Your task to perform on an android device: Go to settings Image 0: 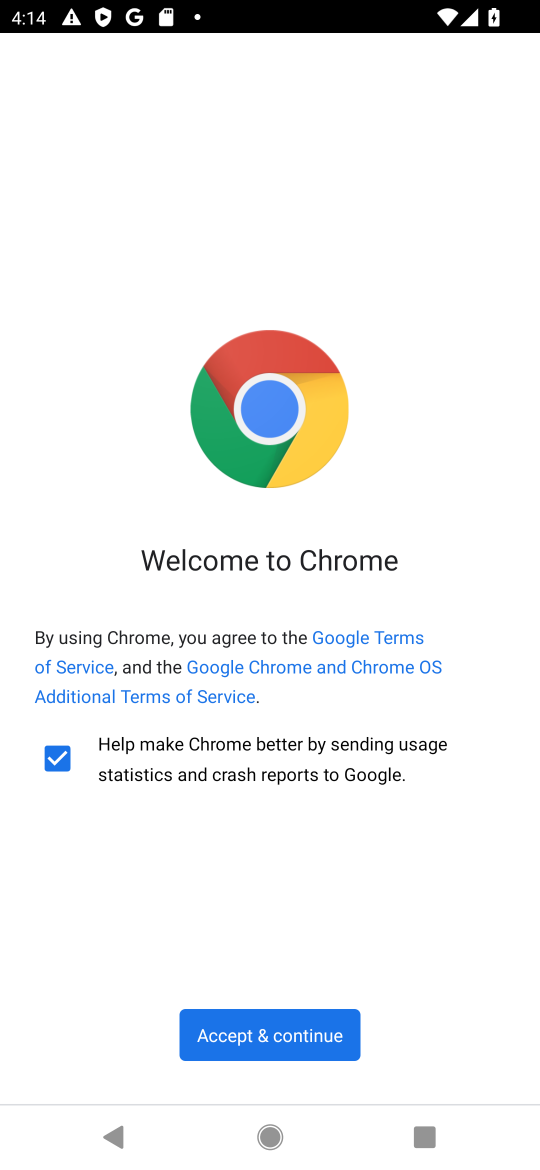
Step 0: press home button
Your task to perform on an android device: Go to settings Image 1: 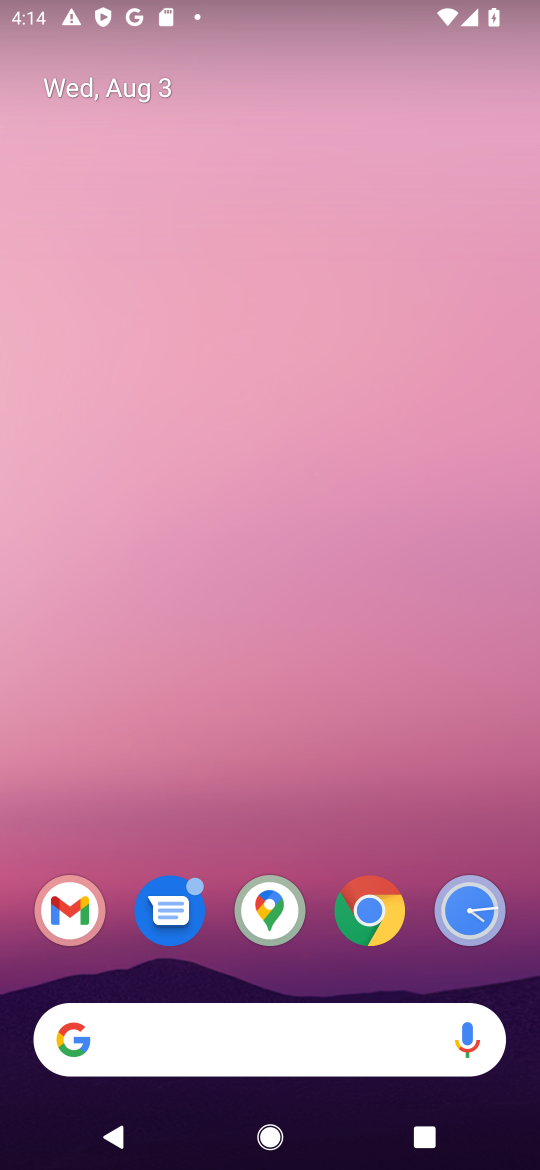
Step 1: drag from (34, 1137) to (343, 200)
Your task to perform on an android device: Go to settings Image 2: 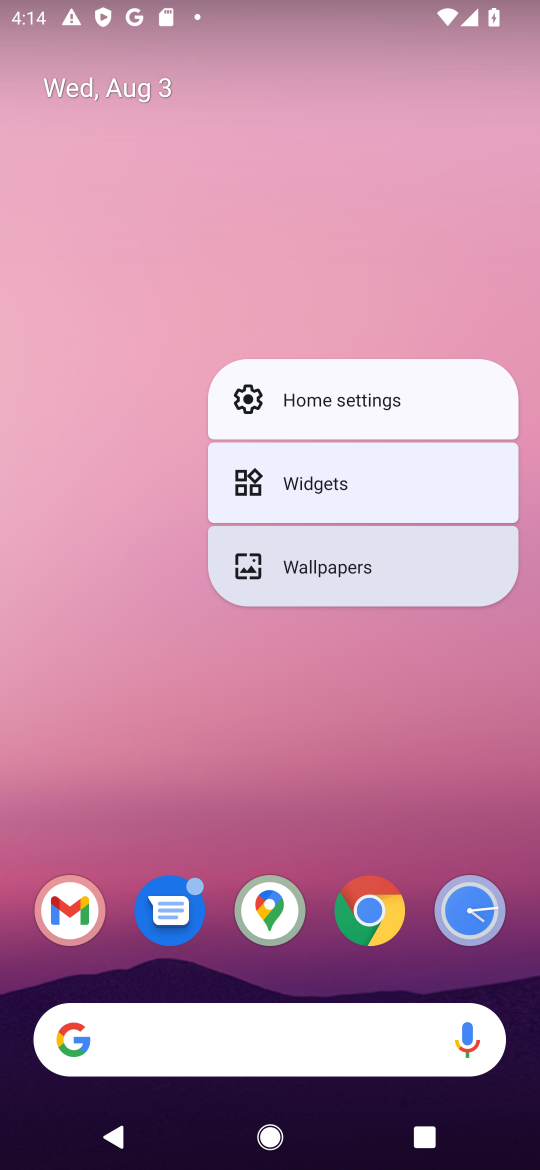
Step 2: drag from (103, 942) to (0, 1088)
Your task to perform on an android device: Go to settings Image 3: 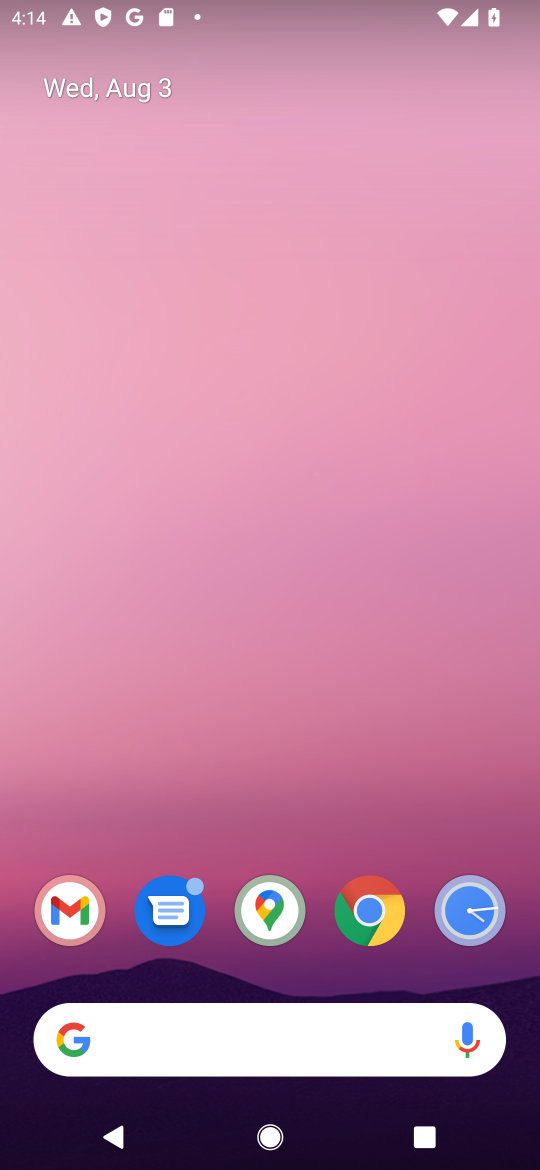
Step 3: drag from (125, 778) to (453, 1011)
Your task to perform on an android device: Go to settings Image 4: 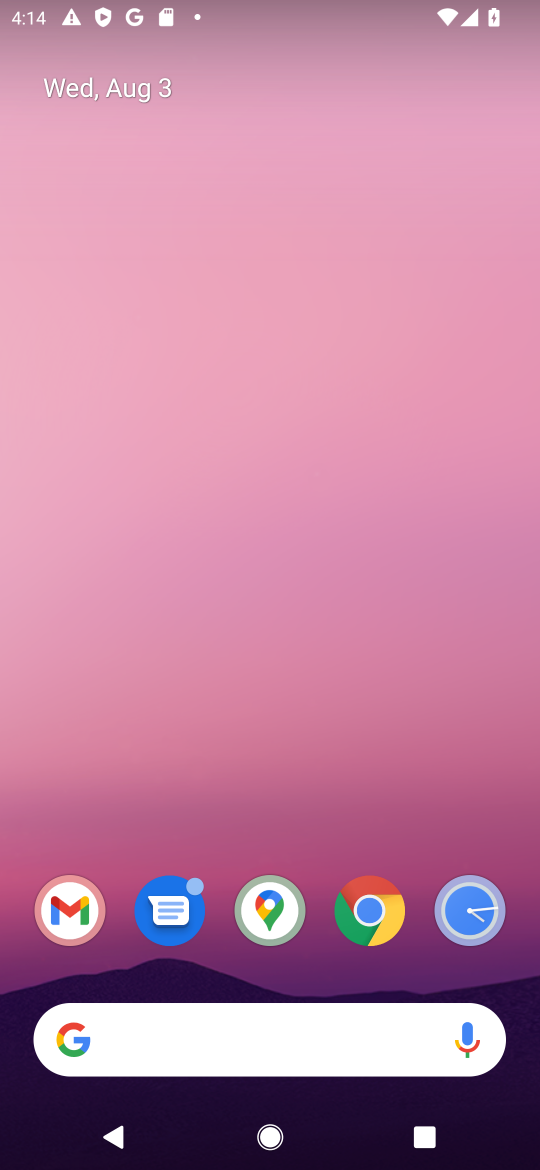
Step 4: drag from (64, 1117) to (272, 63)
Your task to perform on an android device: Go to settings Image 5: 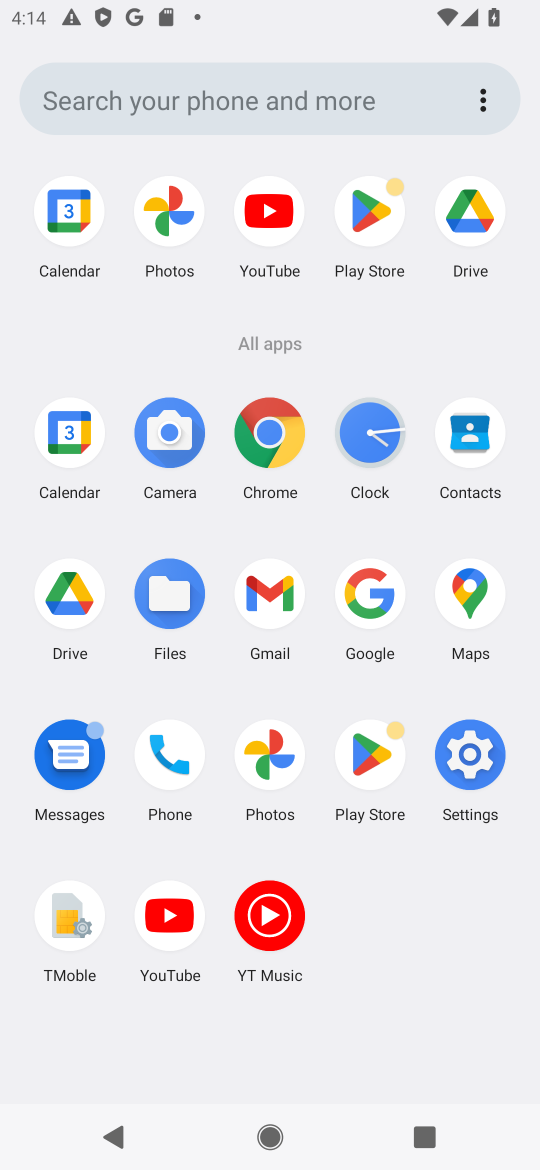
Step 5: click (437, 755)
Your task to perform on an android device: Go to settings Image 6: 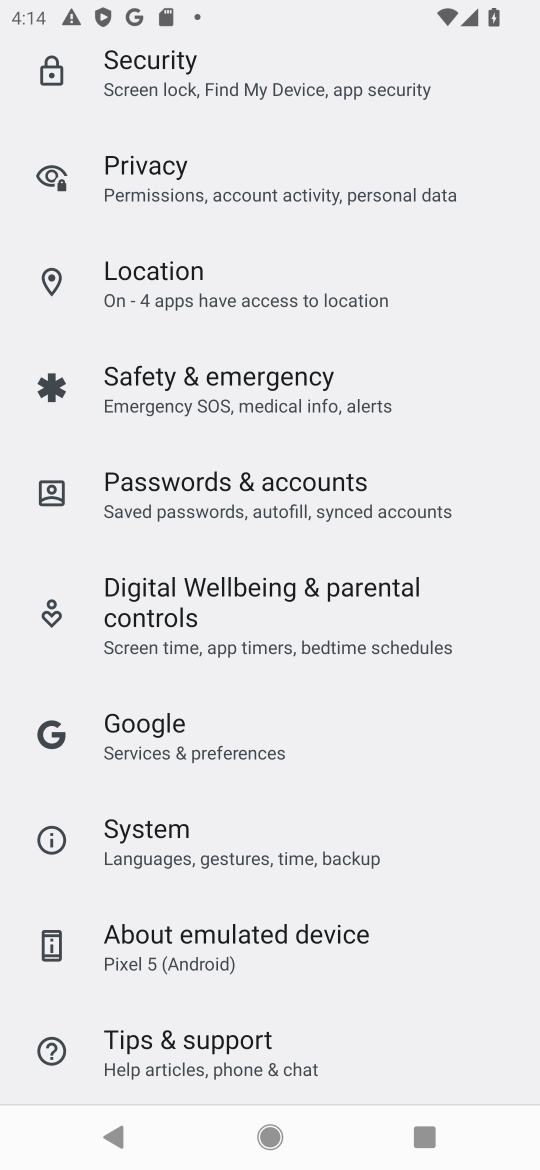
Step 6: task complete